Your task to perform on an android device: turn off improve location accuracy Image 0: 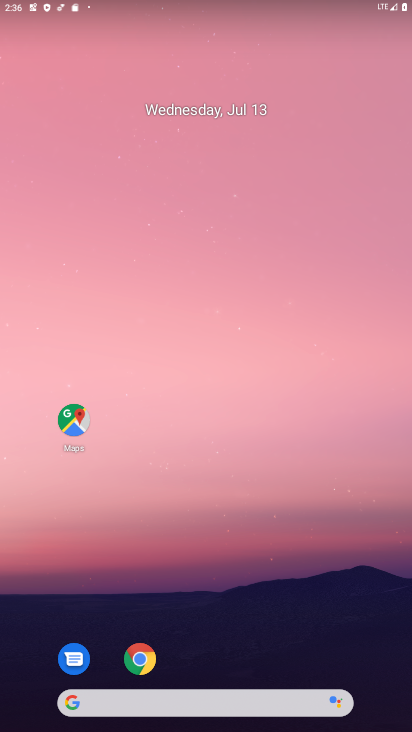
Step 0: drag from (384, 662) to (339, 138)
Your task to perform on an android device: turn off improve location accuracy Image 1: 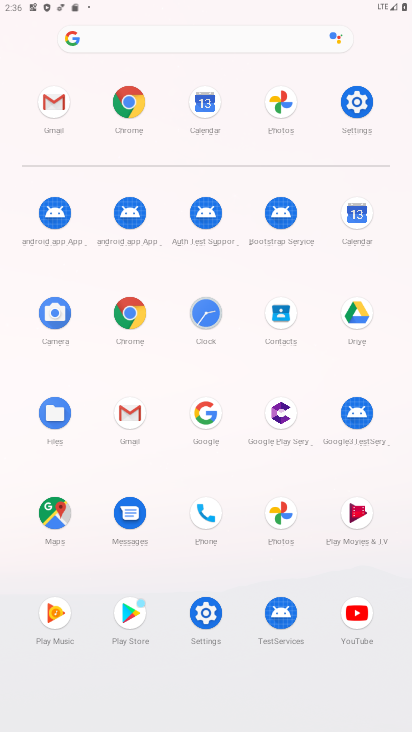
Step 1: click (207, 614)
Your task to perform on an android device: turn off improve location accuracy Image 2: 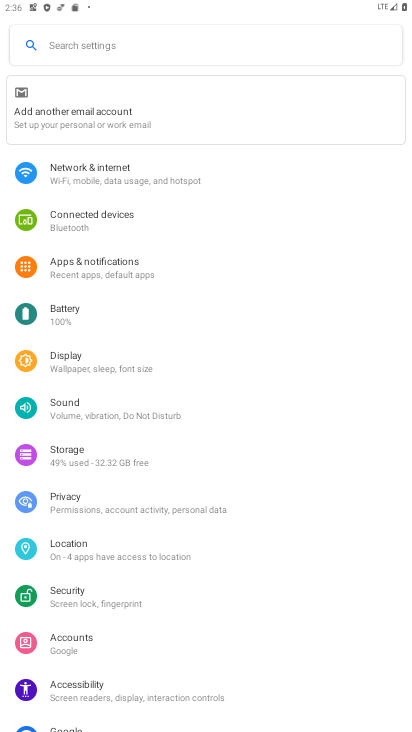
Step 2: click (65, 543)
Your task to perform on an android device: turn off improve location accuracy Image 3: 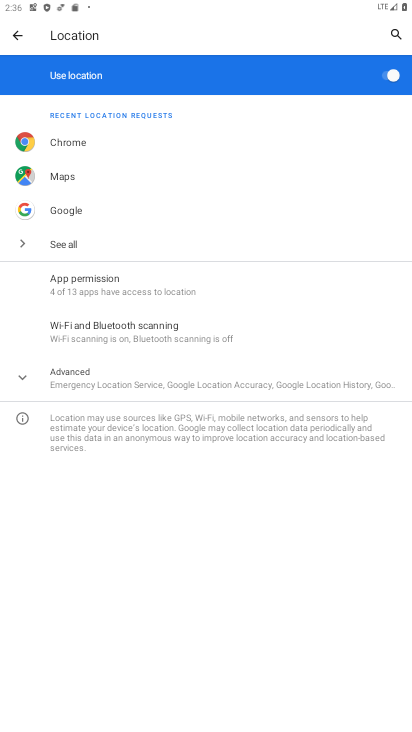
Step 3: click (21, 375)
Your task to perform on an android device: turn off improve location accuracy Image 4: 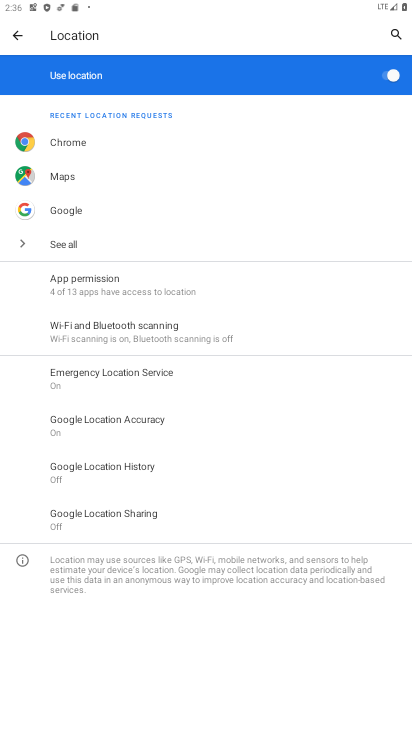
Step 4: click (85, 421)
Your task to perform on an android device: turn off improve location accuracy Image 5: 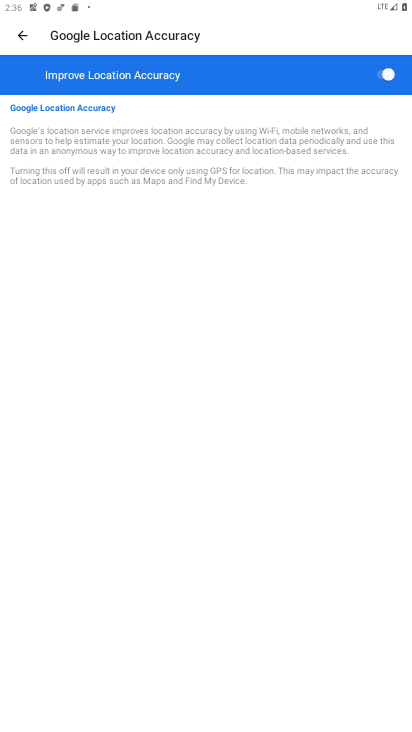
Step 5: click (378, 73)
Your task to perform on an android device: turn off improve location accuracy Image 6: 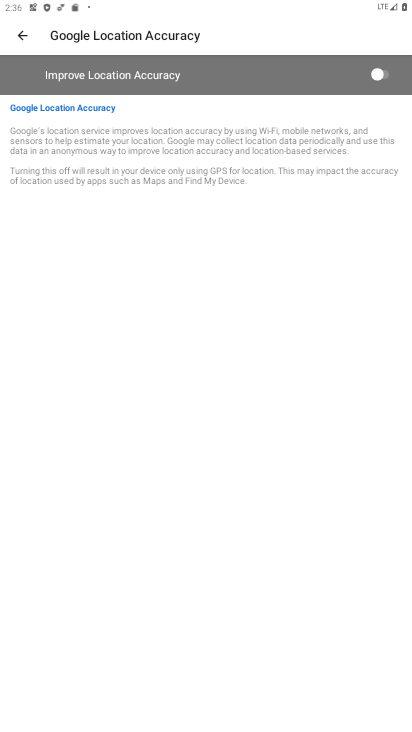
Step 6: task complete